Your task to perform on an android device: move a message to another label in the gmail app Image 0: 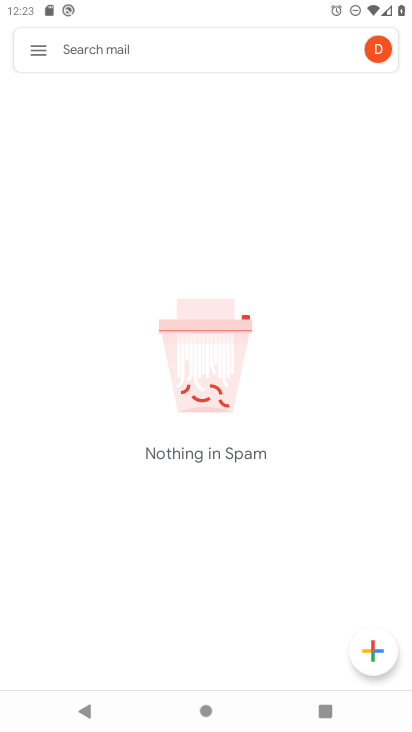
Step 0: press home button
Your task to perform on an android device: move a message to another label in the gmail app Image 1: 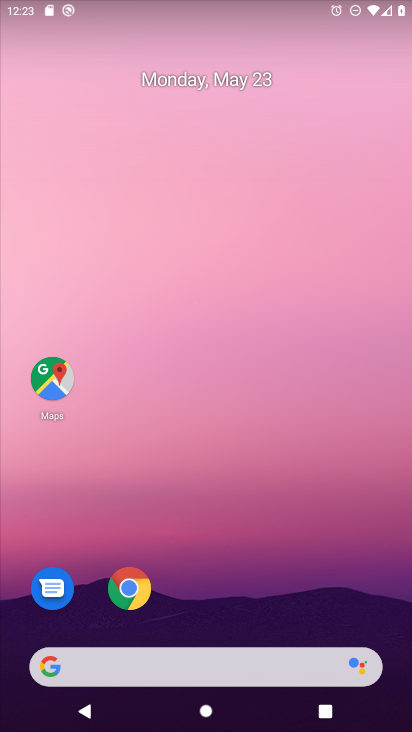
Step 1: drag from (287, 672) to (239, 88)
Your task to perform on an android device: move a message to another label in the gmail app Image 2: 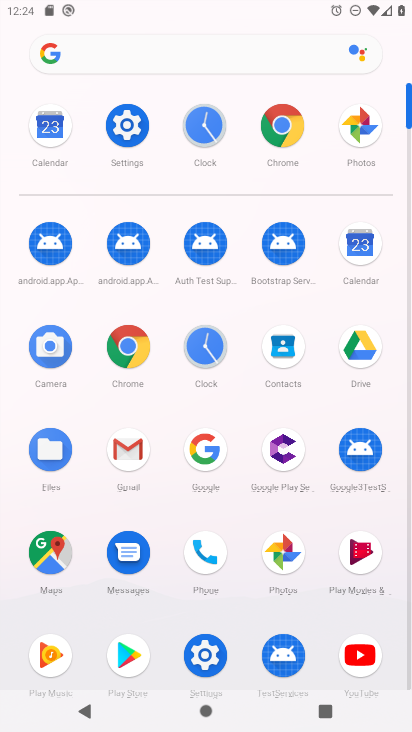
Step 2: click (131, 451)
Your task to perform on an android device: move a message to another label in the gmail app Image 3: 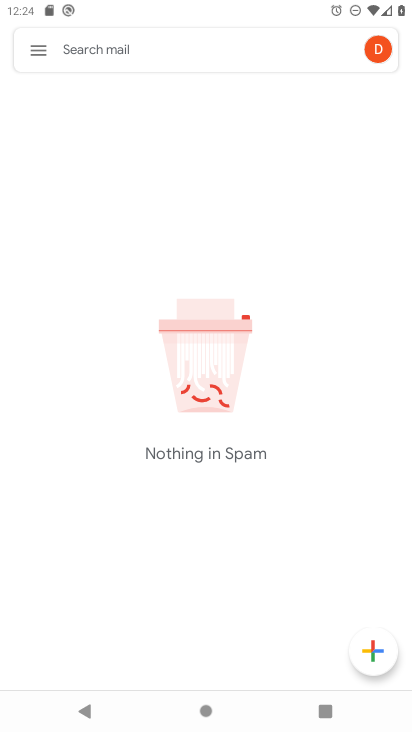
Step 3: click (44, 37)
Your task to perform on an android device: move a message to another label in the gmail app Image 4: 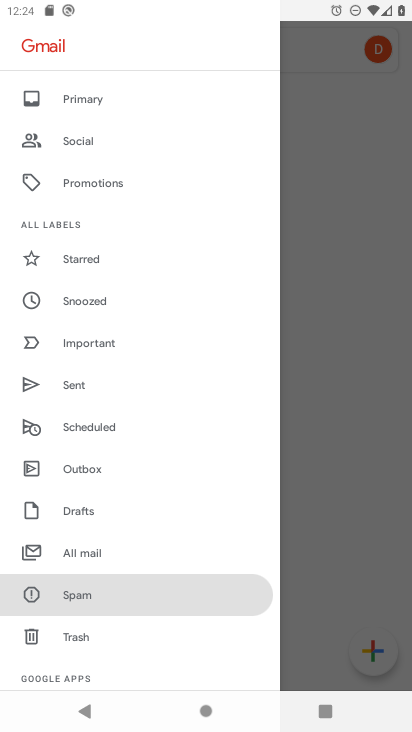
Step 4: drag from (103, 565) to (188, 289)
Your task to perform on an android device: move a message to another label in the gmail app Image 5: 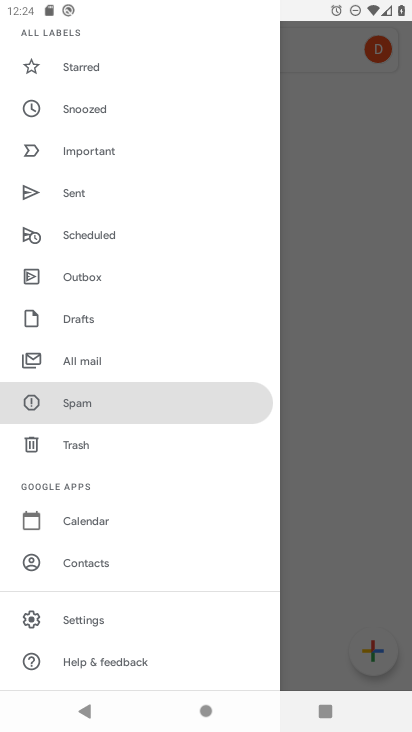
Step 5: click (90, 630)
Your task to perform on an android device: move a message to another label in the gmail app Image 6: 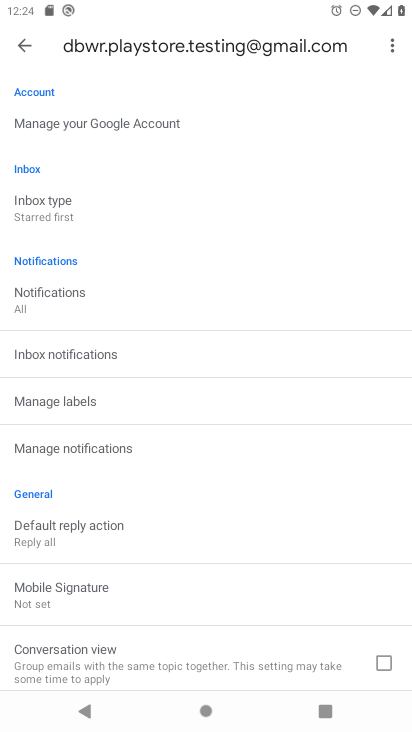
Step 6: click (83, 411)
Your task to perform on an android device: move a message to another label in the gmail app Image 7: 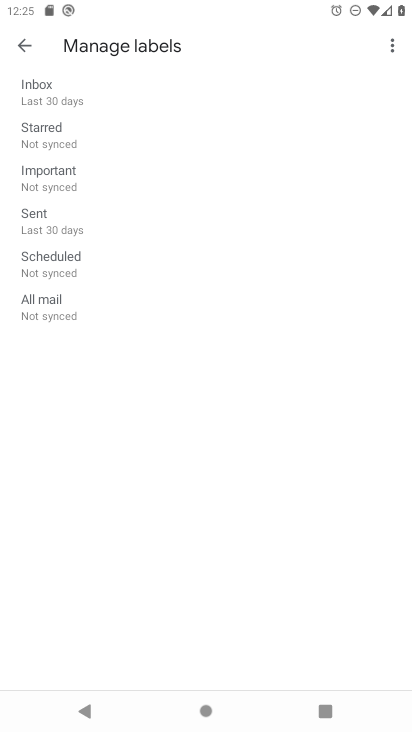
Step 7: click (115, 192)
Your task to perform on an android device: move a message to another label in the gmail app Image 8: 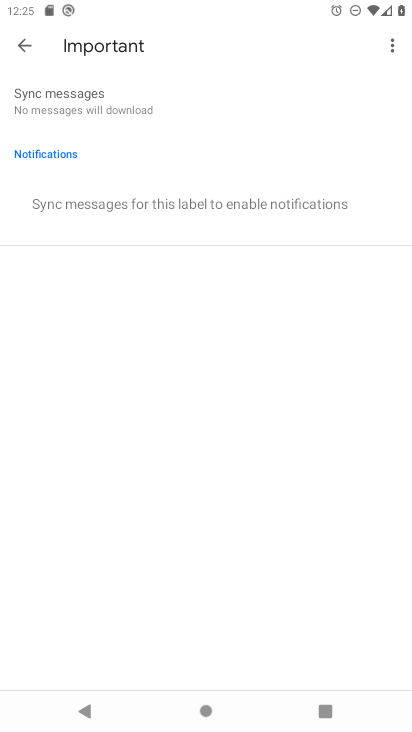
Step 8: task complete